Your task to perform on an android device: Go to Maps Image 0: 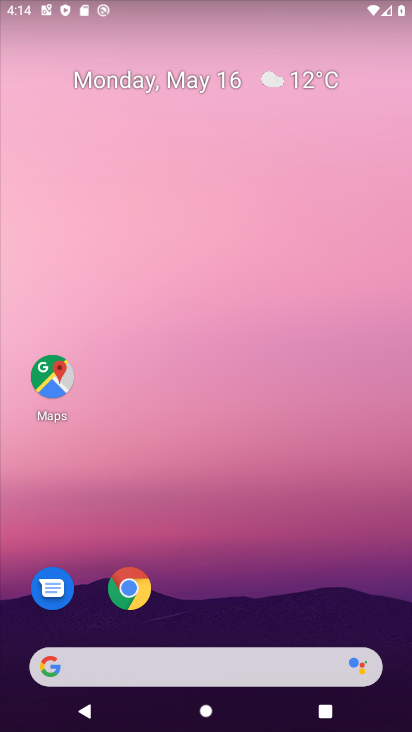
Step 0: click (50, 369)
Your task to perform on an android device: Go to Maps Image 1: 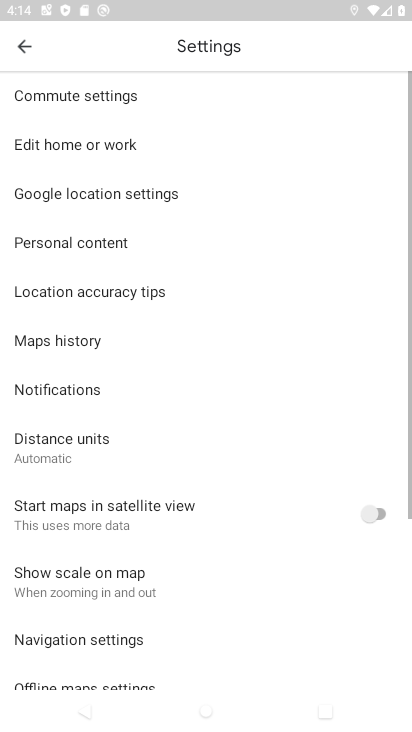
Step 1: click (27, 48)
Your task to perform on an android device: Go to Maps Image 2: 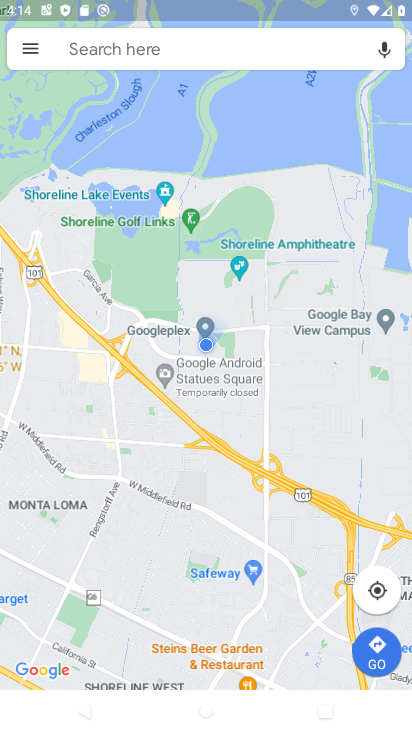
Step 2: task complete